Your task to perform on an android device: Open Google Chrome and click the shortcut for Amazon.com Image 0: 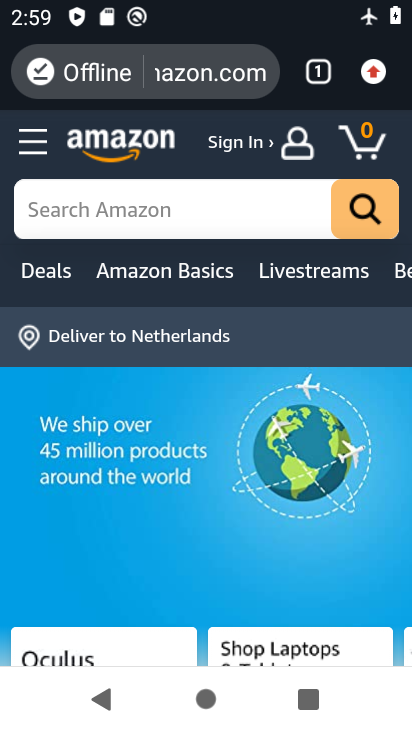
Step 0: click (374, 68)
Your task to perform on an android device: Open Google Chrome and click the shortcut for Amazon.com Image 1: 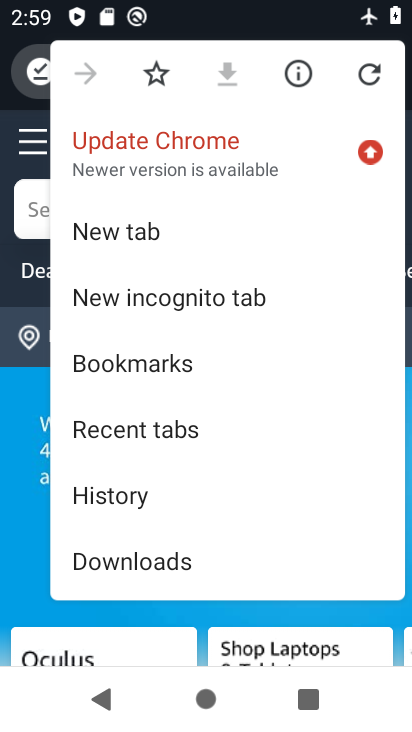
Step 1: drag from (229, 458) to (268, 129)
Your task to perform on an android device: Open Google Chrome and click the shortcut for Amazon.com Image 2: 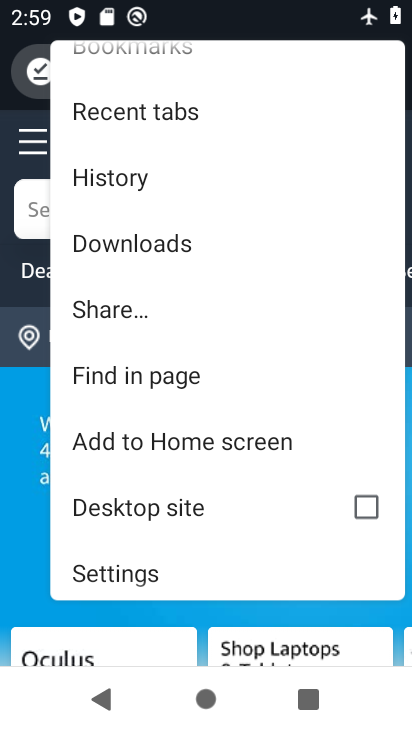
Step 2: click (222, 436)
Your task to perform on an android device: Open Google Chrome and click the shortcut for Amazon.com Image 3: 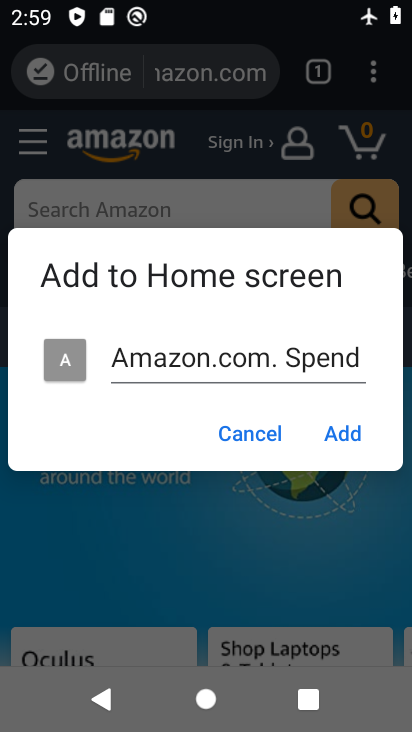
Step 3: click (344, 427)
Your task to perform on an android device: Open Google Chrome and click the shortcut for Amazon.com Image 4: 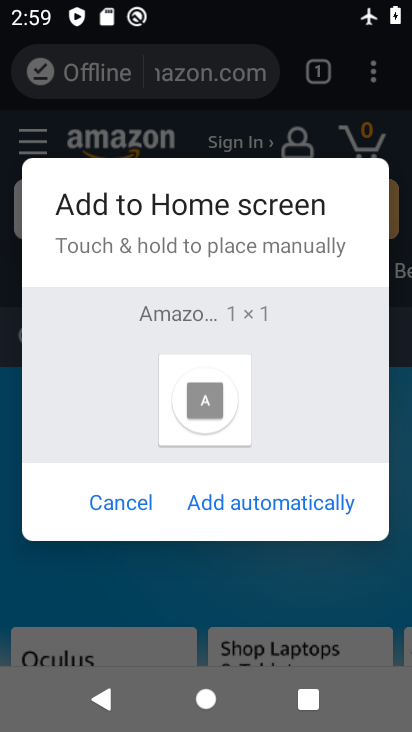
Step 4: click (287, 503)
Your task to perform on an android device: Open Google Chrome and click the shortcut for Amazon.com Image 5: 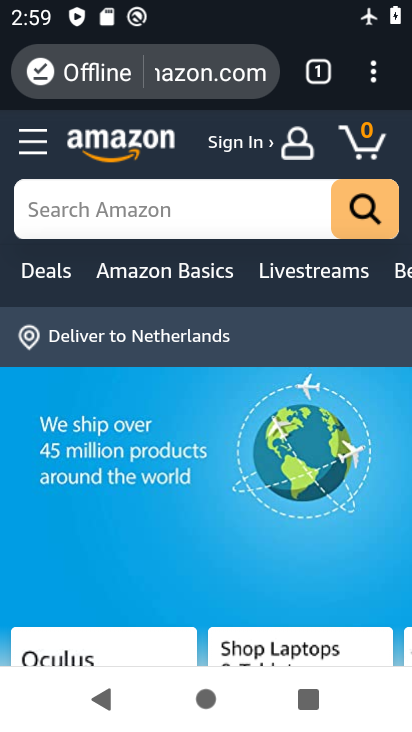
Step 5: task complete